Your task to perform on an android device: Do I have any events tomorrow? Image 0: 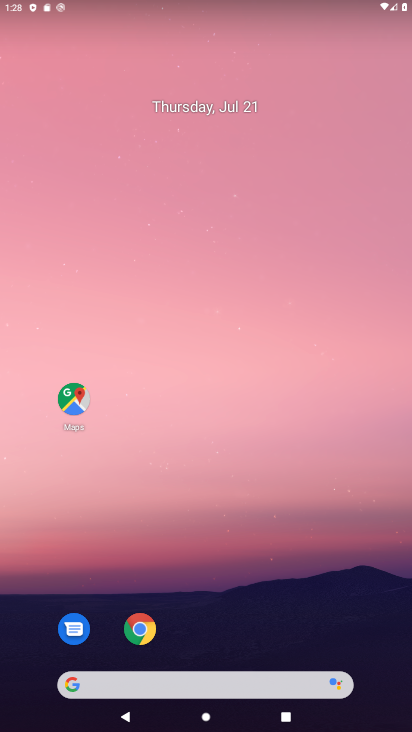
Step 0: drag from (390, 665) to (291, 6)
Your task to perform on an android device: Do I have any events tomorrow? Image 1: 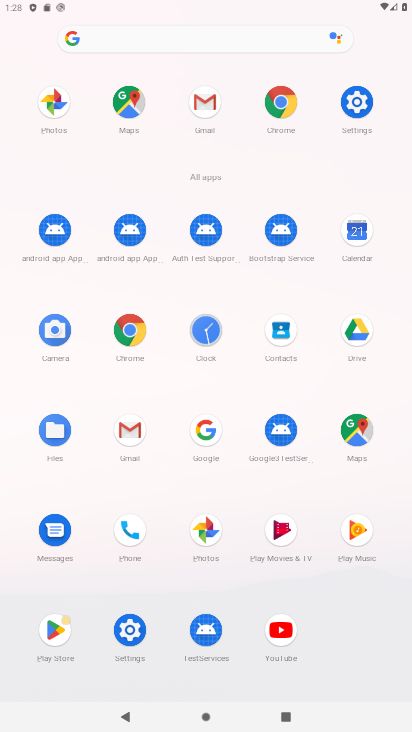
Step 1: click (357, 232)
Your task to perform on an android device: Do I have any events tomorrow? Image 2: 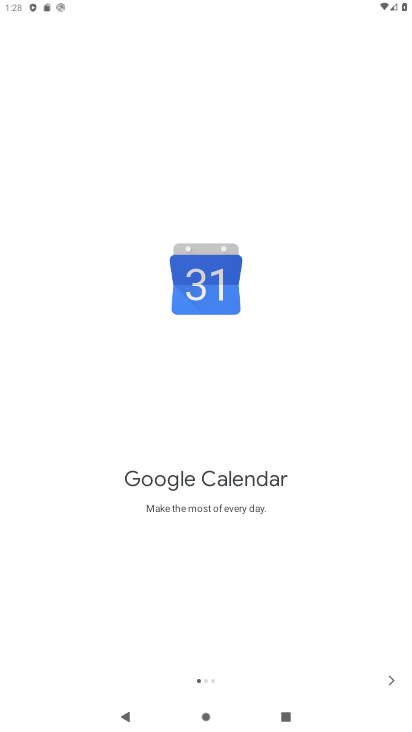
Step 2: click (390, 684)
Your task to perform on an android device: Do I have any events tomorrow? Image 3: 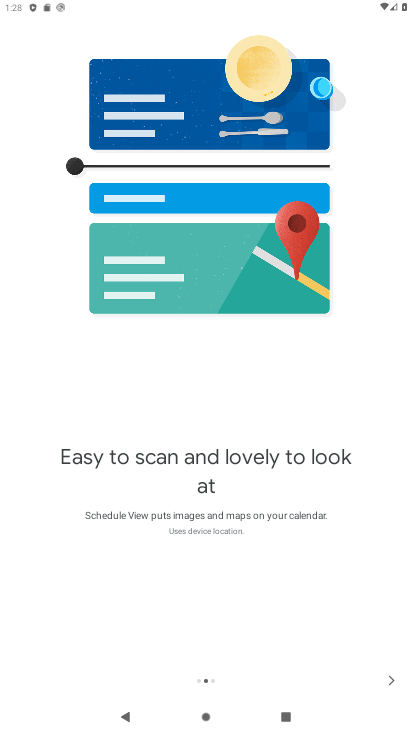
Step 3: click (391, 679)
Your task to perform on an android device: Do I have any events tomorrow? Image 4: 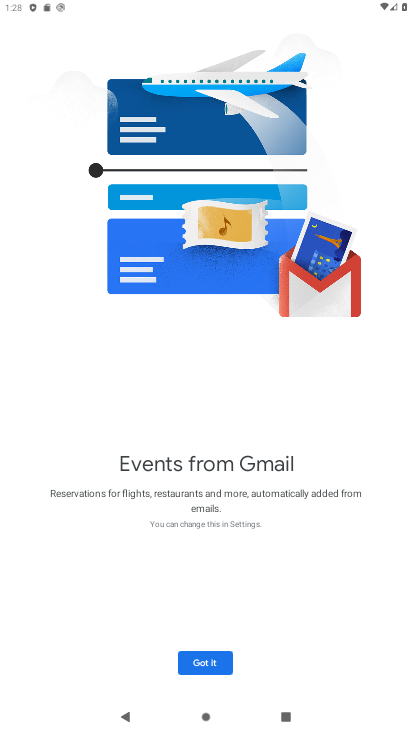
Step 4: click (201, 662)
Your task to perform on an android device: Do I have any events tomorrow? Image 5: 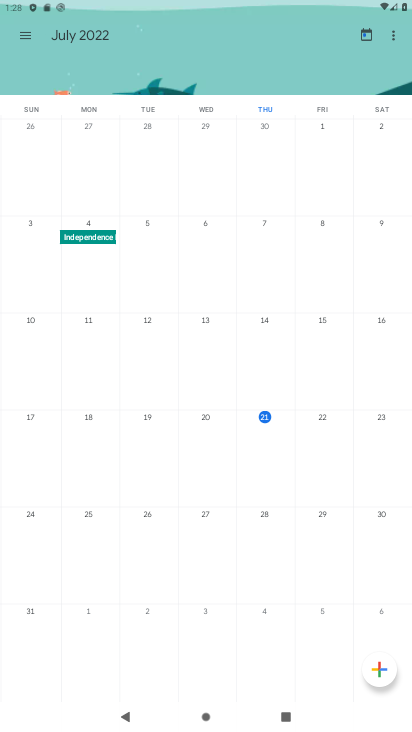
Step 5: click (23, 34)
Your task to perform on an android device: Do I have any events tomorrow? Image 6: 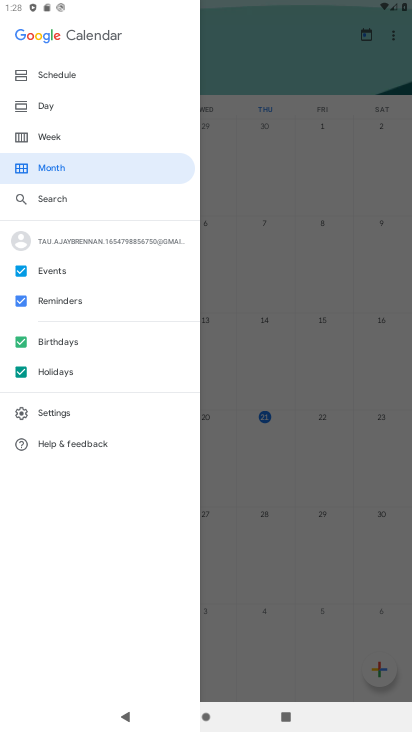
Step 6: click (49, 107)
Your task to perform on an android device: Do I have any events tomorrow? Image 7: 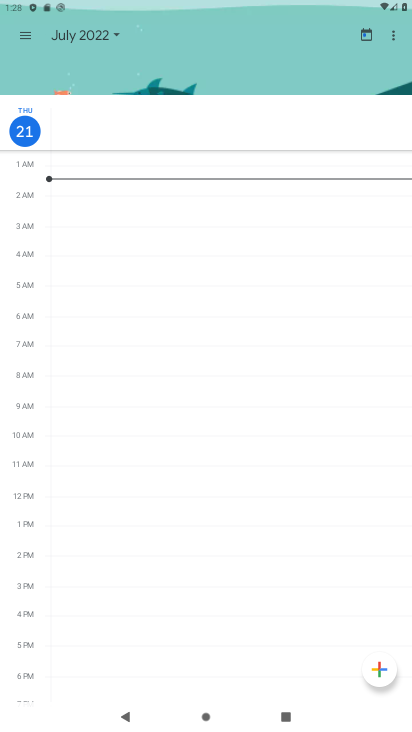
Step 7: click (114, 36)
Your task to perform on an android device: Do I have any events tomorrow? Image 8: 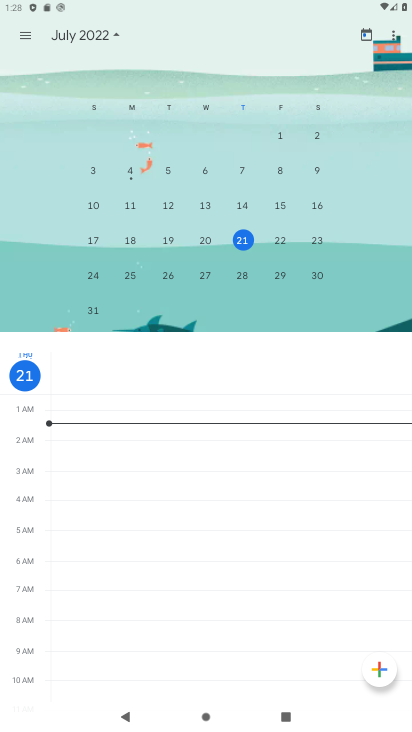
Step 8: click (280, 240)
Your task to perform on an android device: Do I have any events tomorrow? Image 9: 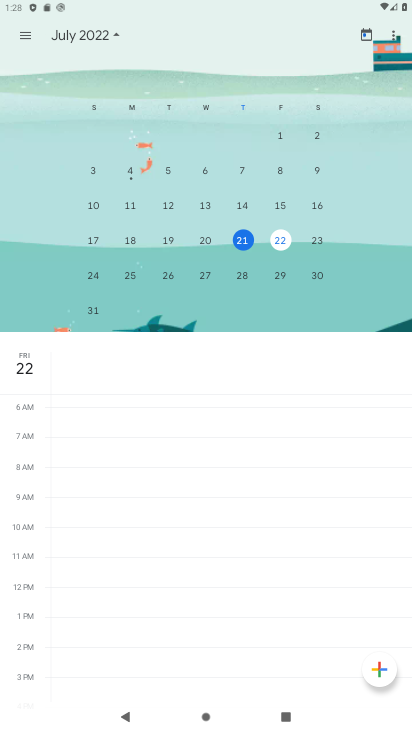
Step 9: task complete